Your task to perform on an android device: Open Google Maps Image 0: 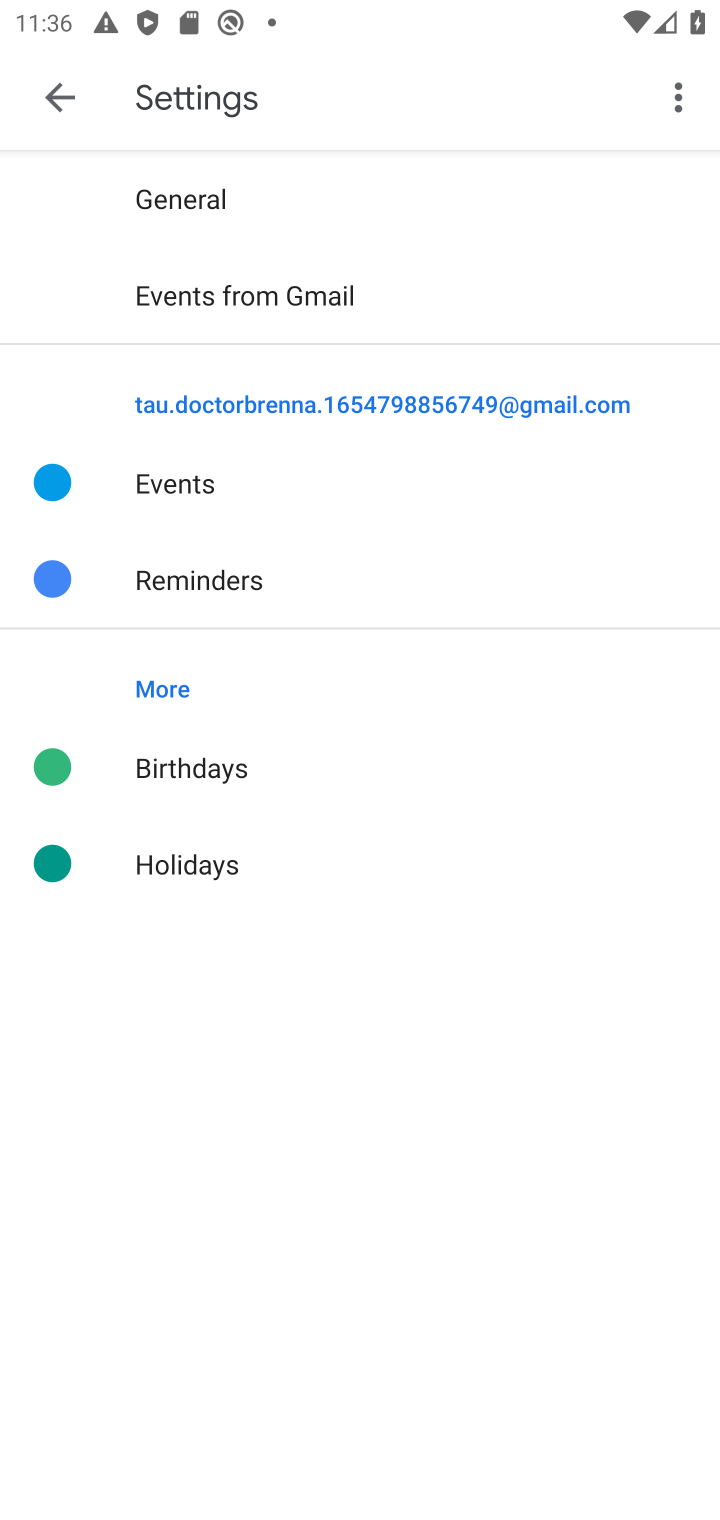
Step 0: press home button
Your task to perform on an android device: Open Google Maps Image 1: 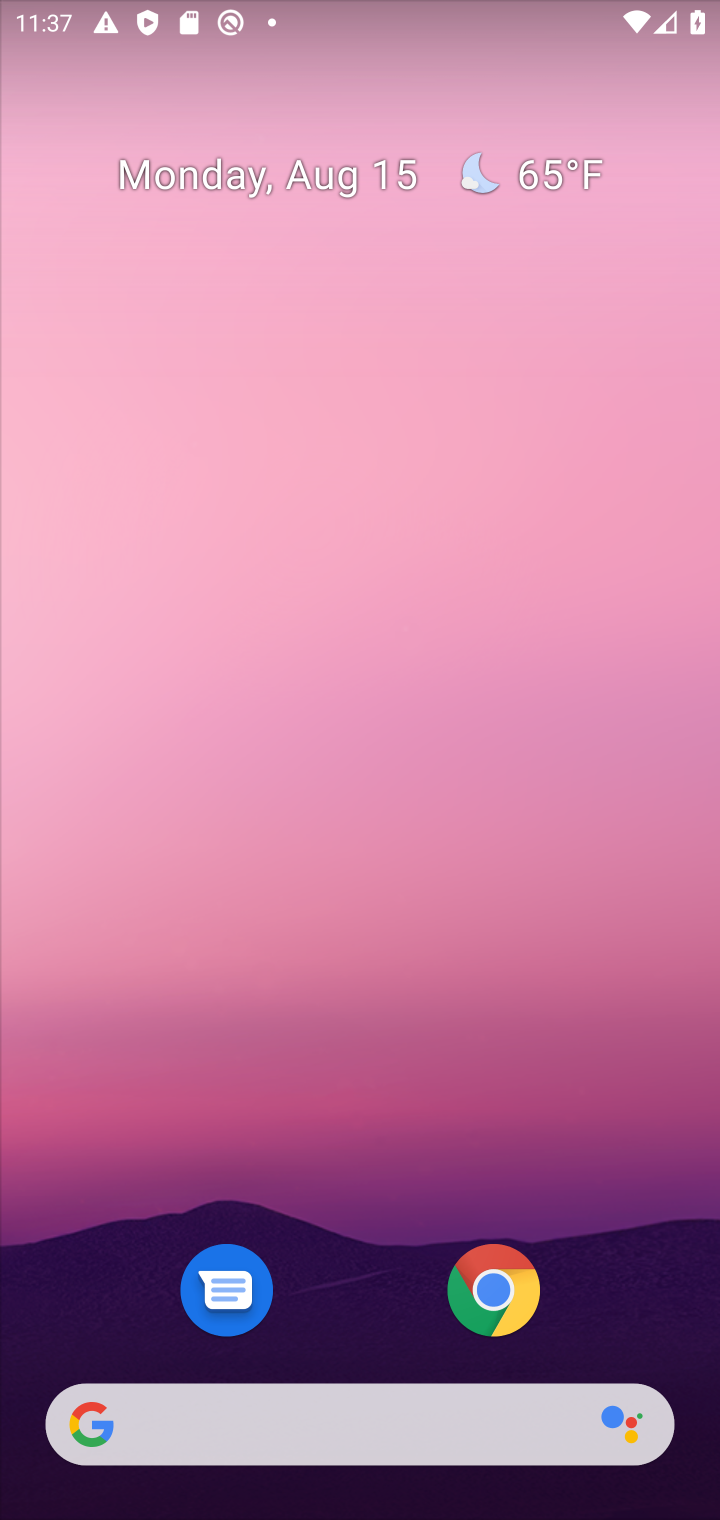
Step 1: drag from (31, 1166) to (454, 141)
Your task to perform on an android device: Open Google Maps Image 2: 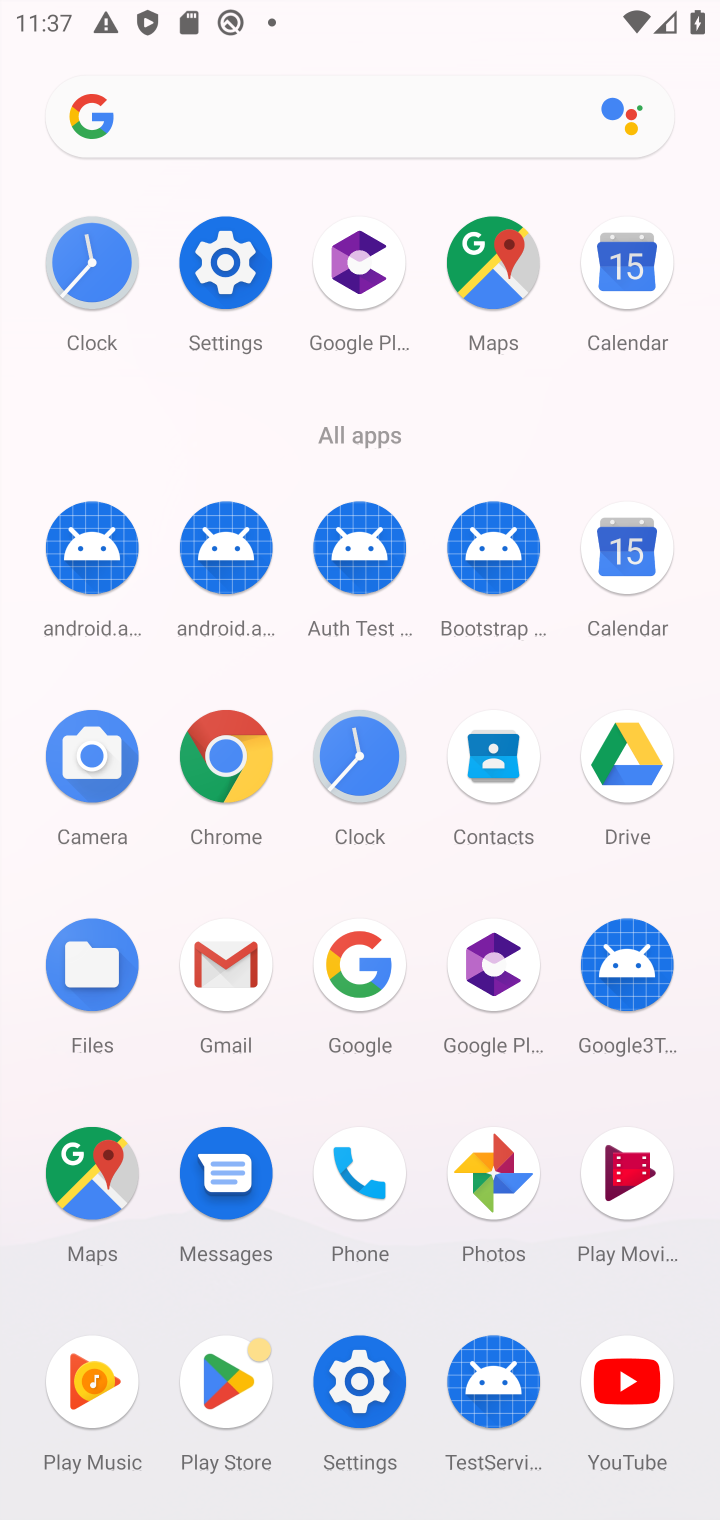
Step 2: click (86, 1182)
Your task to perform on an android device: Open Google Maps Image 3: 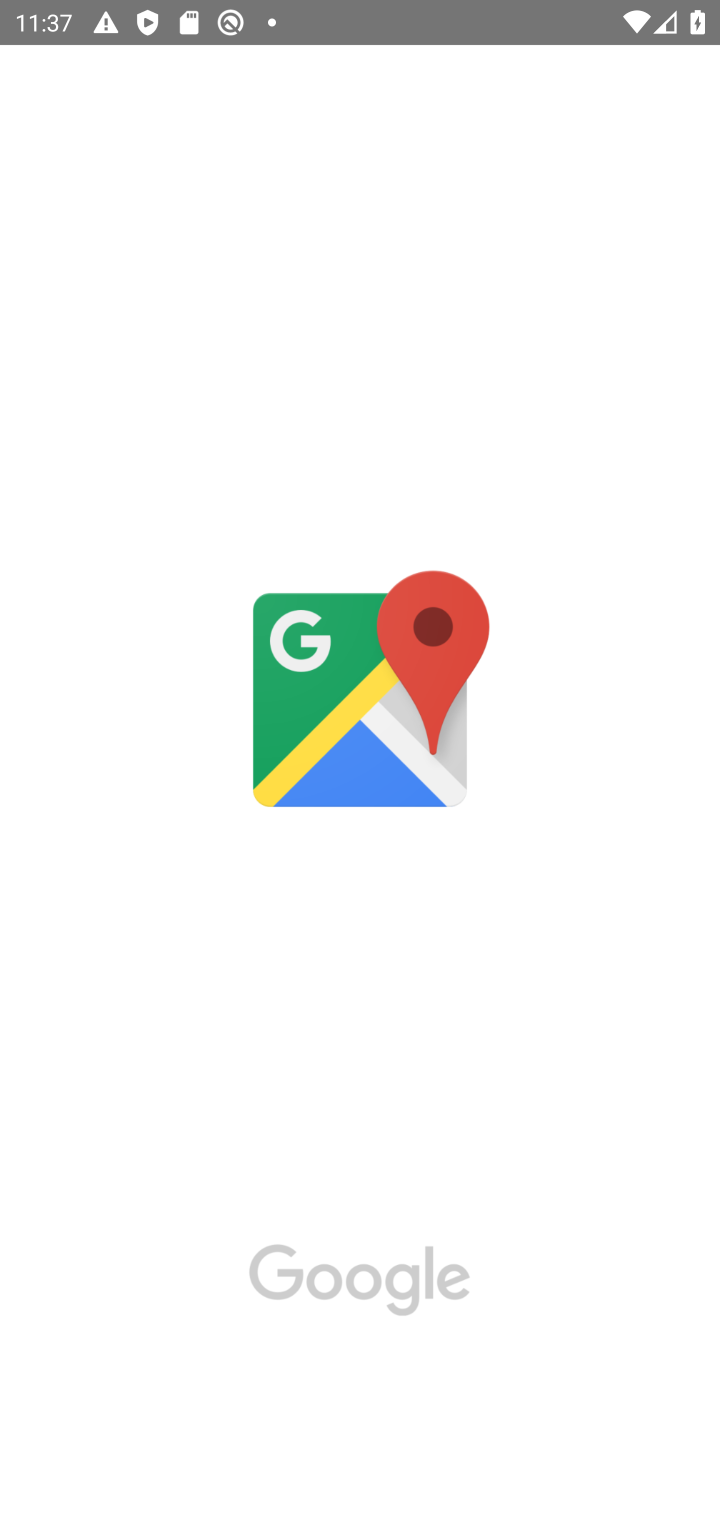
Step 3: task complete